Your task to perform on an android device: Search for the best burger restaurants on Maps Image 0: 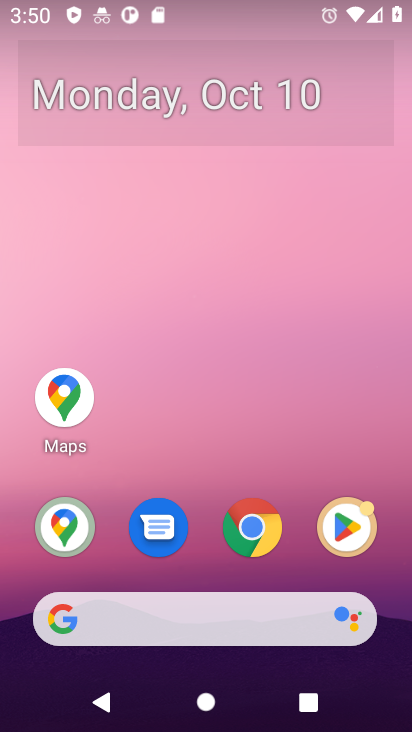
Step 0: click (70, 392)
Your task to perform on an android device: Search for the best burger restaurants on Maps Image 1: 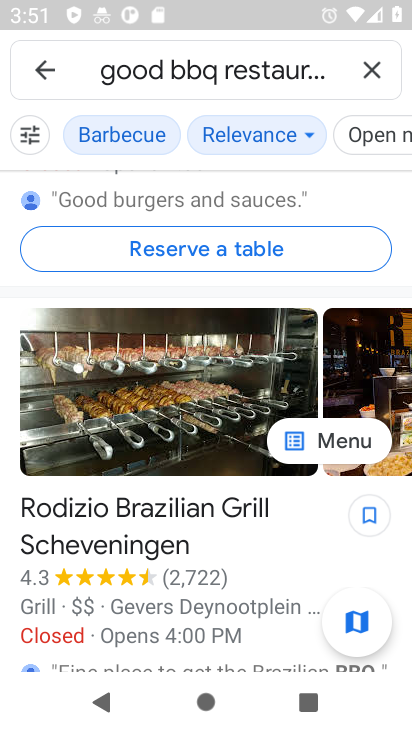
Step 1: click (370, 67)
Your task to perform on an android device: Search for the best burger restaurants on Maps Image 2: 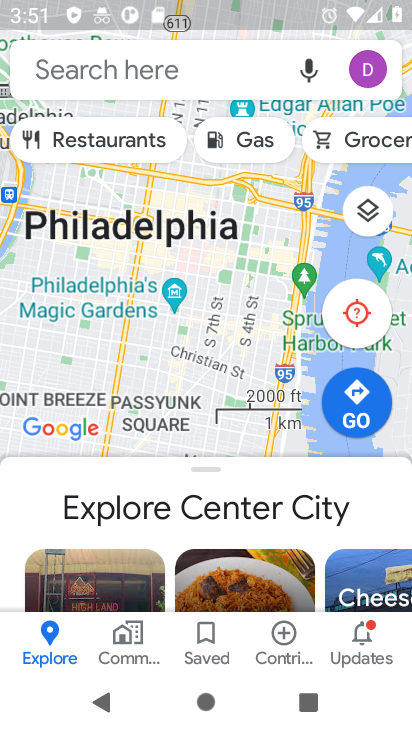
Step 2: click (217, 73)
Your task to perform on an android device: Search for the best burger restaurants on Maps Image 3: 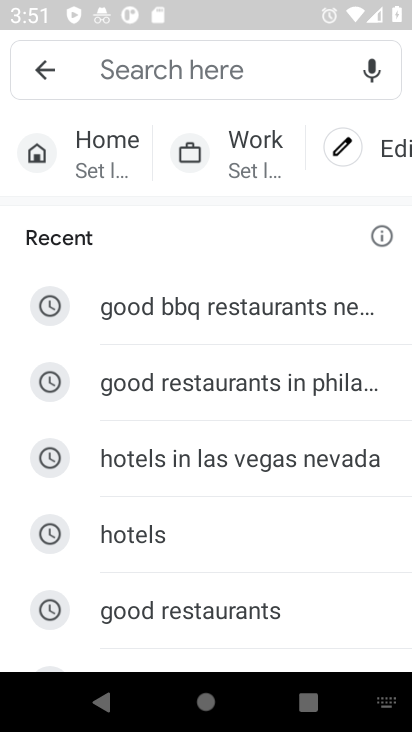
Step 3: type "best burger restaurants"
Your task to perform on an android device: Search for the best burger restaurants on Maps Image 4: 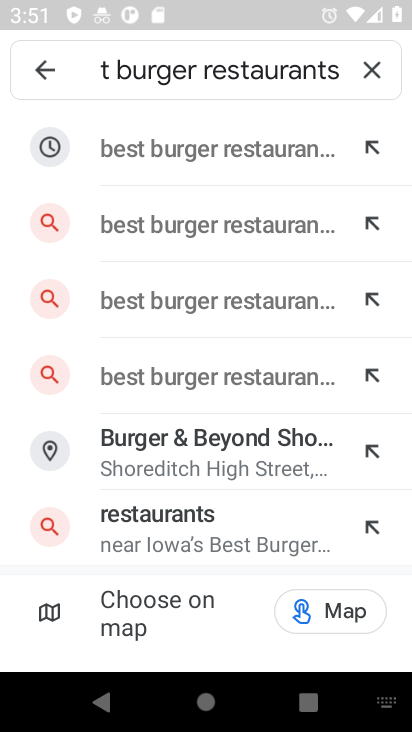
Step 4: click (284, 157)
Your task to perform on an android device: Search for the best burger restaurants on Maps Image 5: 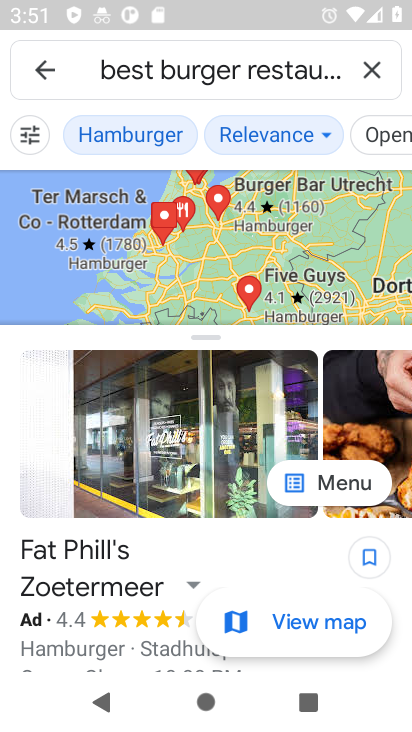
Step 5: task complete